Your task to perform on an android device: open device folders in google photos Image 0: 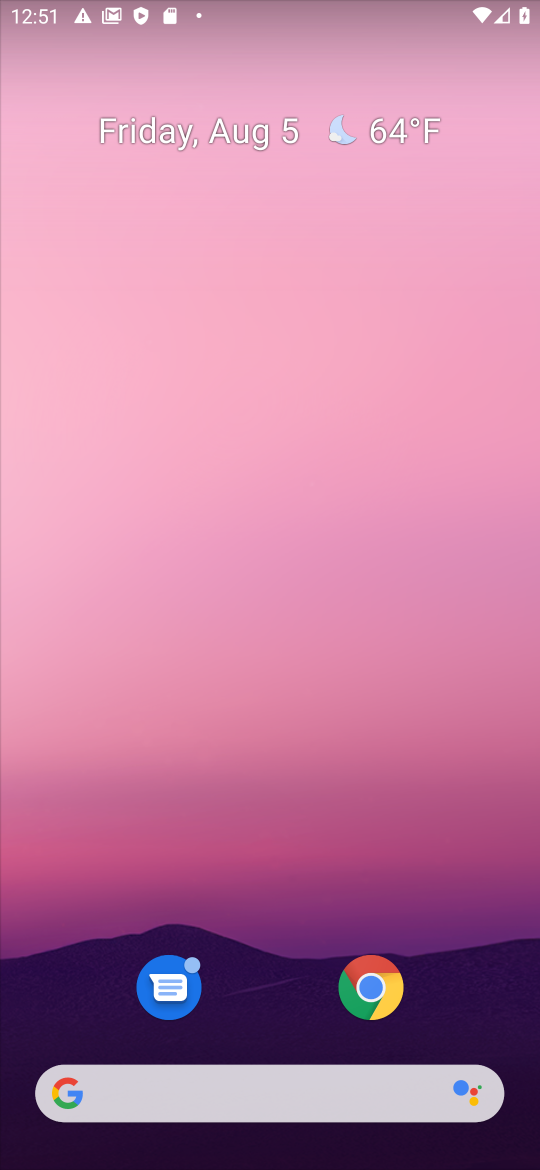
Step 0: drag from (192, 323) to (255, 0)
Your task to perform on an android device: open device folders in google photos Image 1: 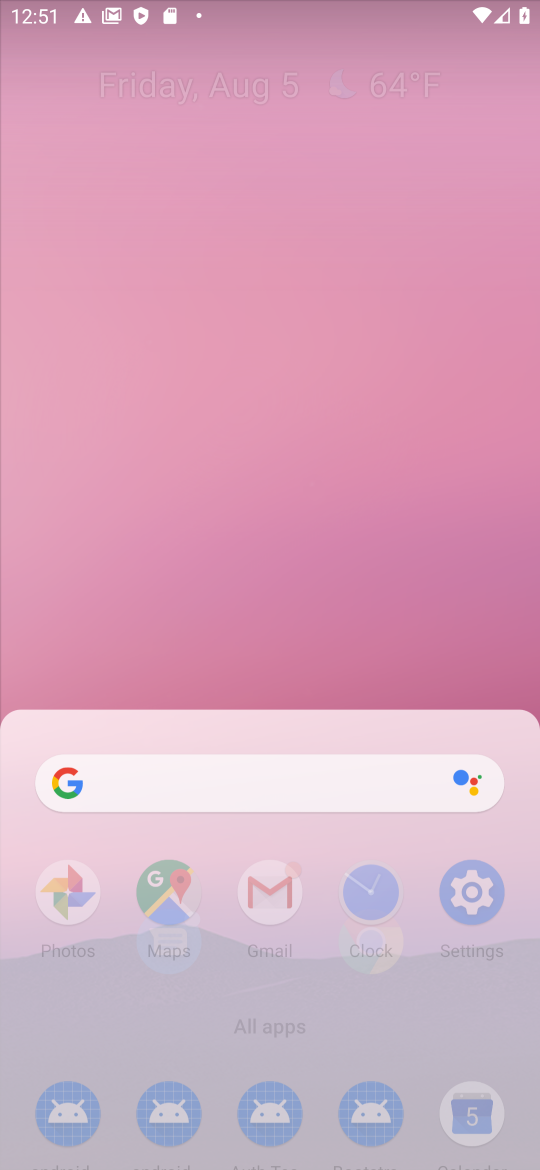
Step 1: drag from (308, 325) to (231, 180)
Your task to perform on an android device: open device folders in google photos Image 2: 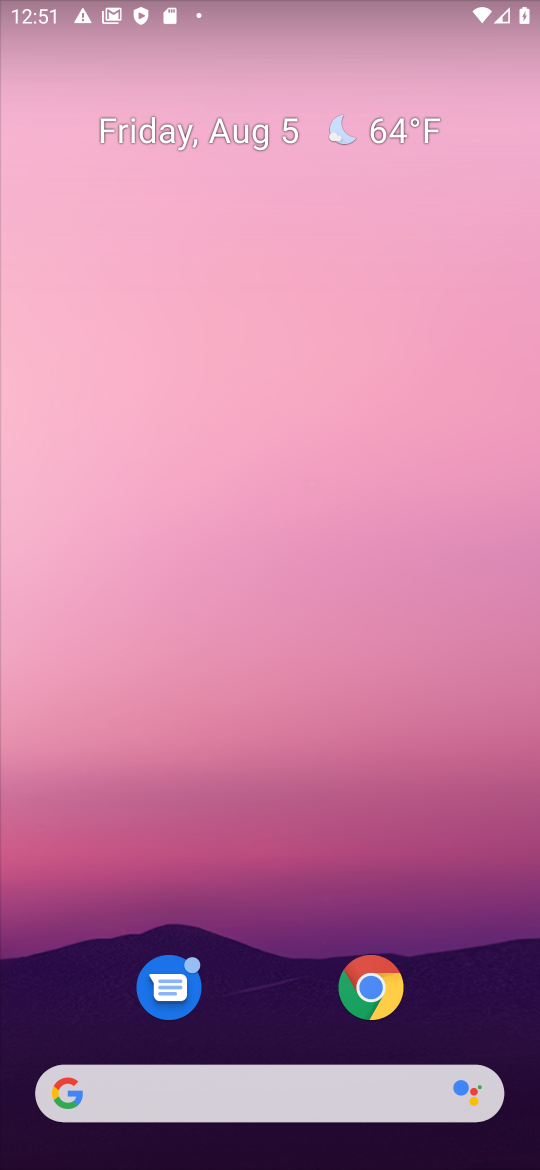
Step 2: drag from (339, 484) to (292, 274)
Your task to perform on an android device: open device folders in google photos Image 3: 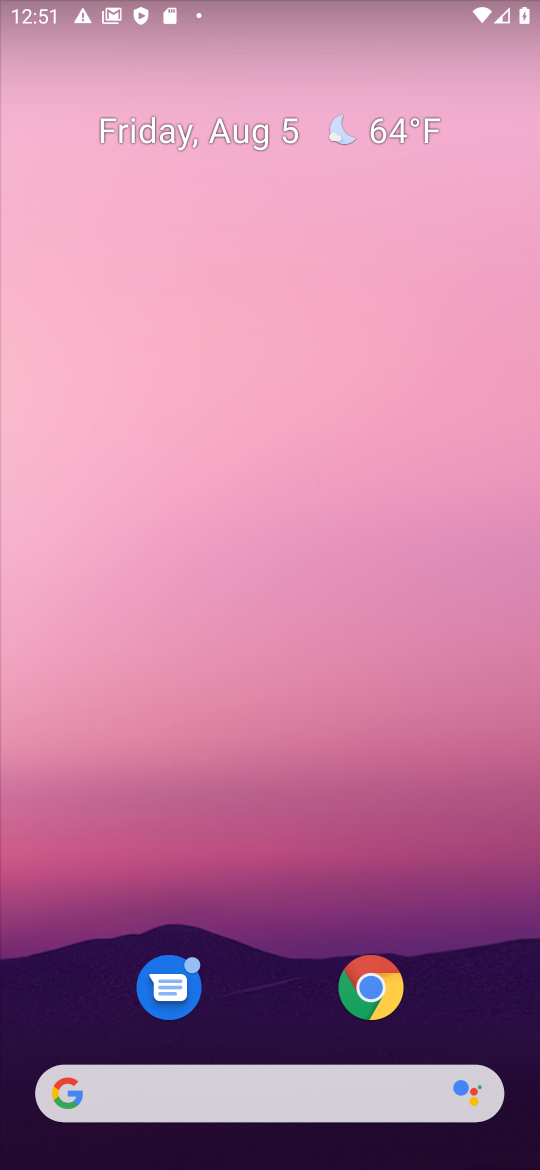
Step 3: drag from (296, 173) to (255, 12)
Your task to perform on an android device: open device folders in google photos Image 4: 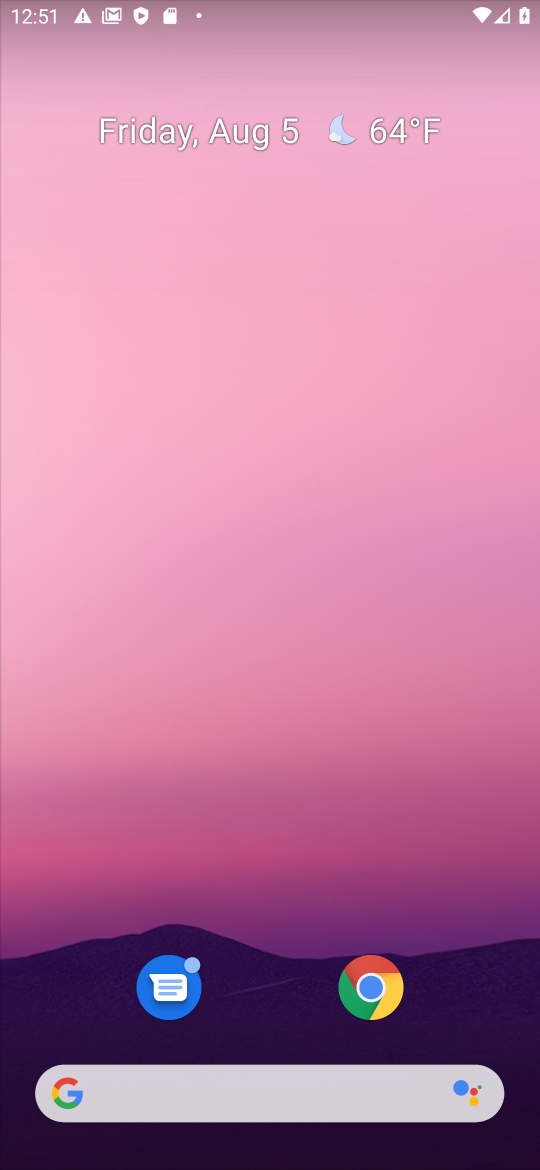
Step 4: drag from (199, 125) to (190, 177)
Your task to perform on an android device: open device folders in google photos Image 5: 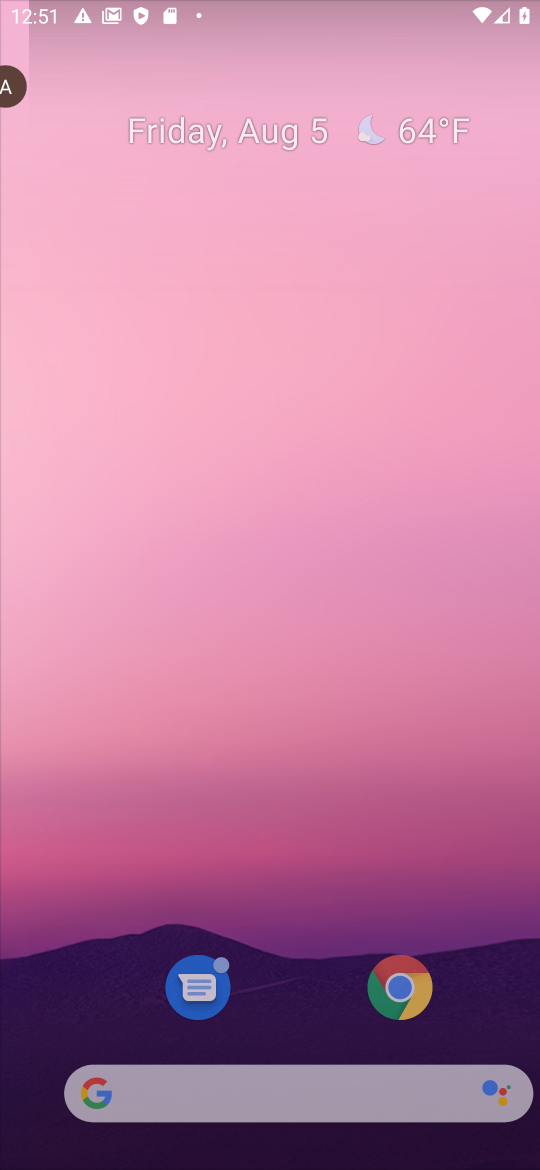
Step 5: drag from (316, 913) to (376, 209)
Your task to perform on an android device: open device folders in google photos Image 6: 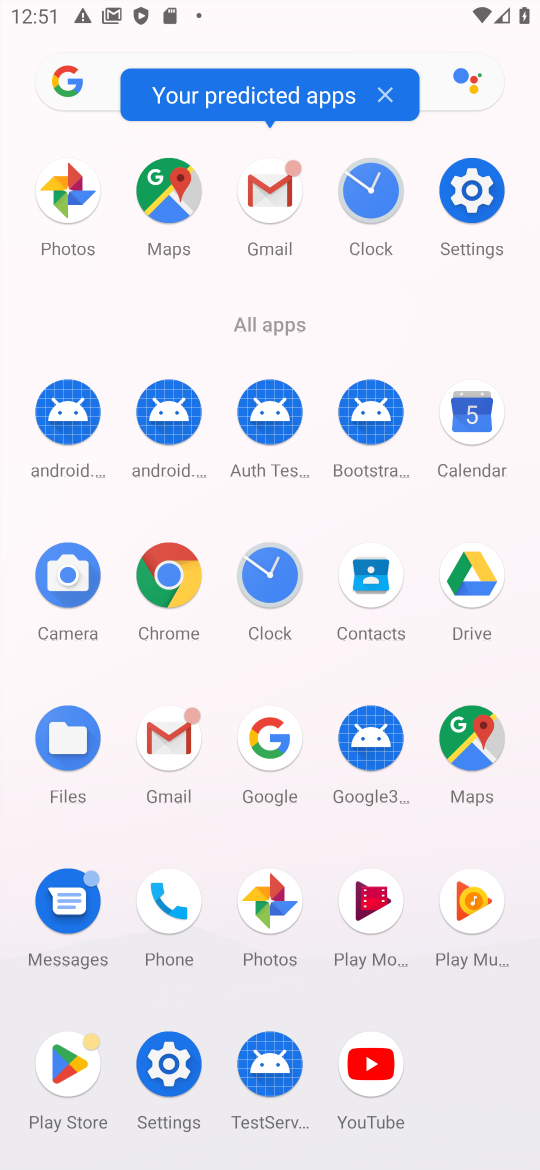
Step 6: click (271, 886)
Your task to perform on an android device: open device folders in google photos Image 7: 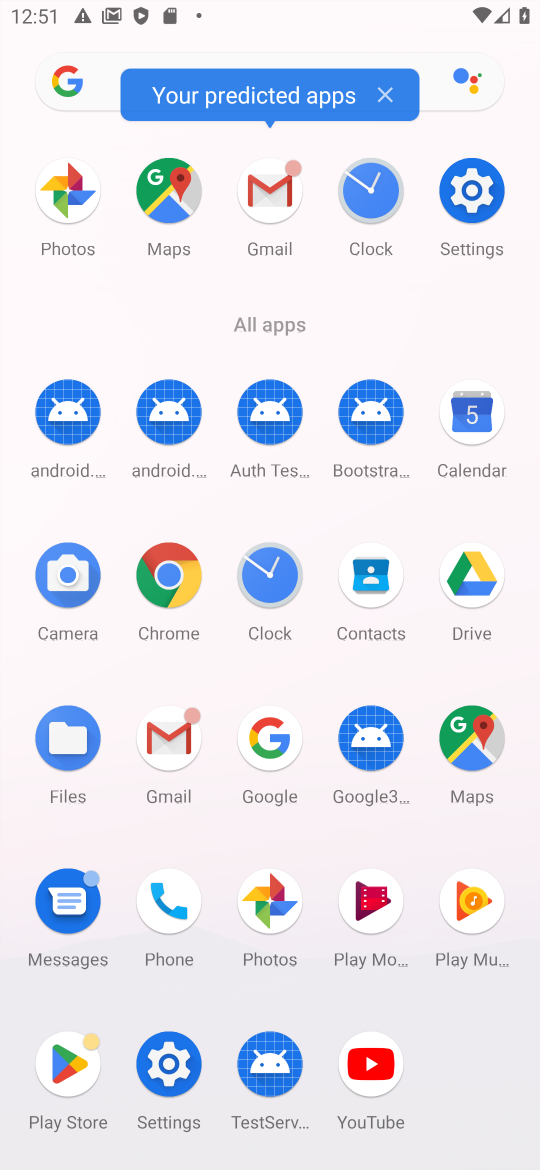
Step 7: click (258, 899)
Your task to perform on an android device: open device folders in google photos Image 8: 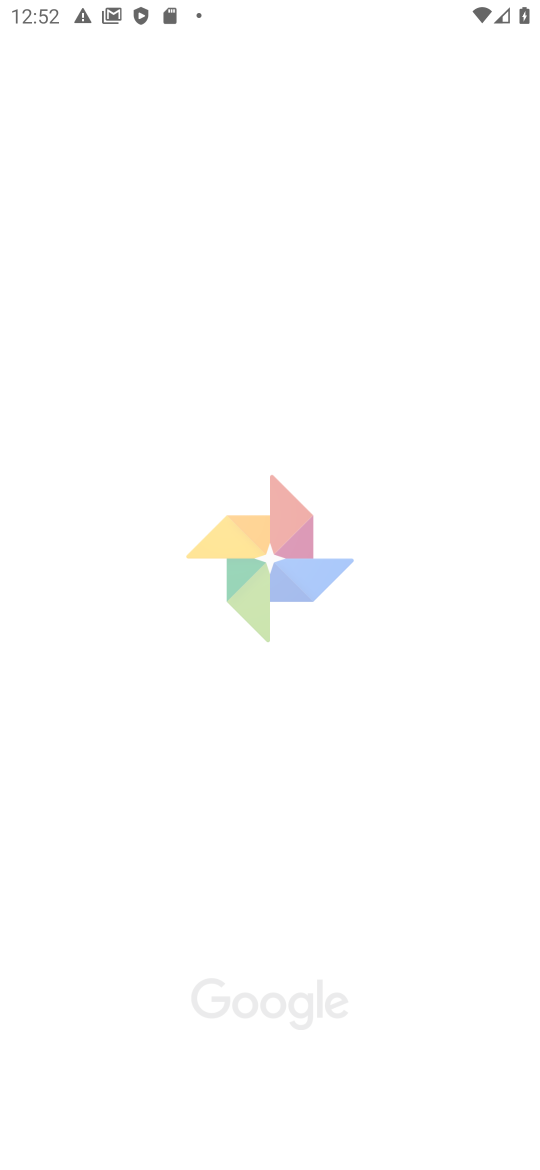
Step 8: click (263, 917)
Your task to perform on an android device: open device folders in google photos Image 9: 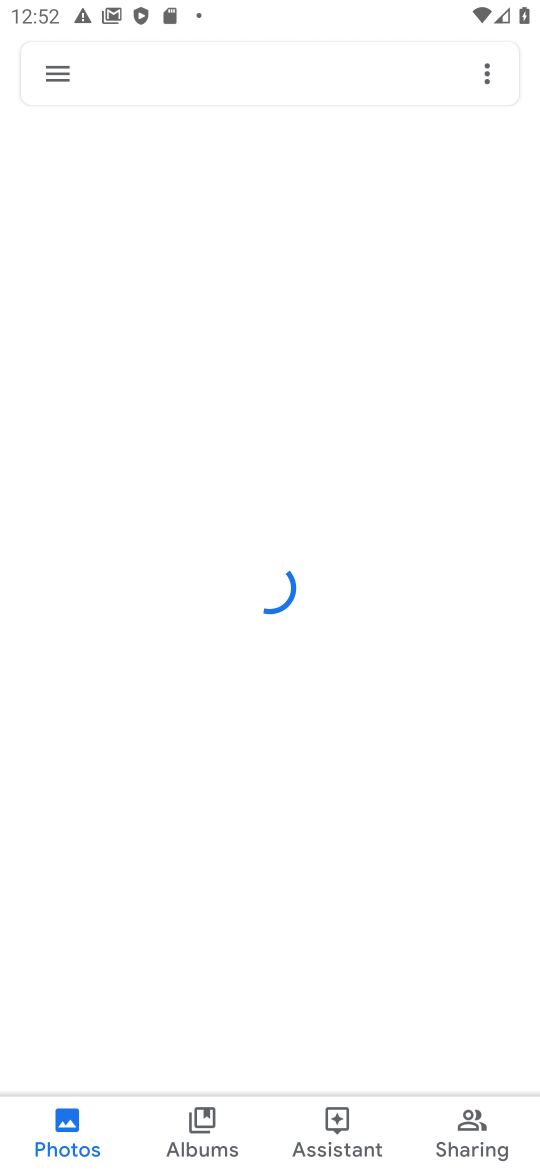
Step 9: click (46, 62)
Your task to perform on an android device: open device folders in google photos Image 10: 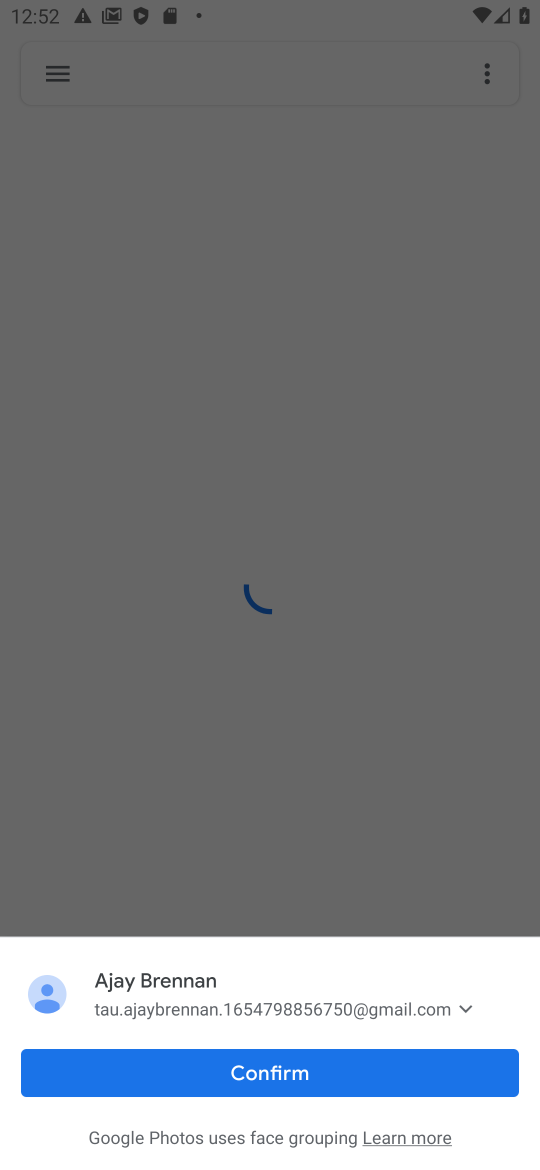
Step 10: click (61, 67)
Your task to perform on an android device: open device folders in google photos Image 11: 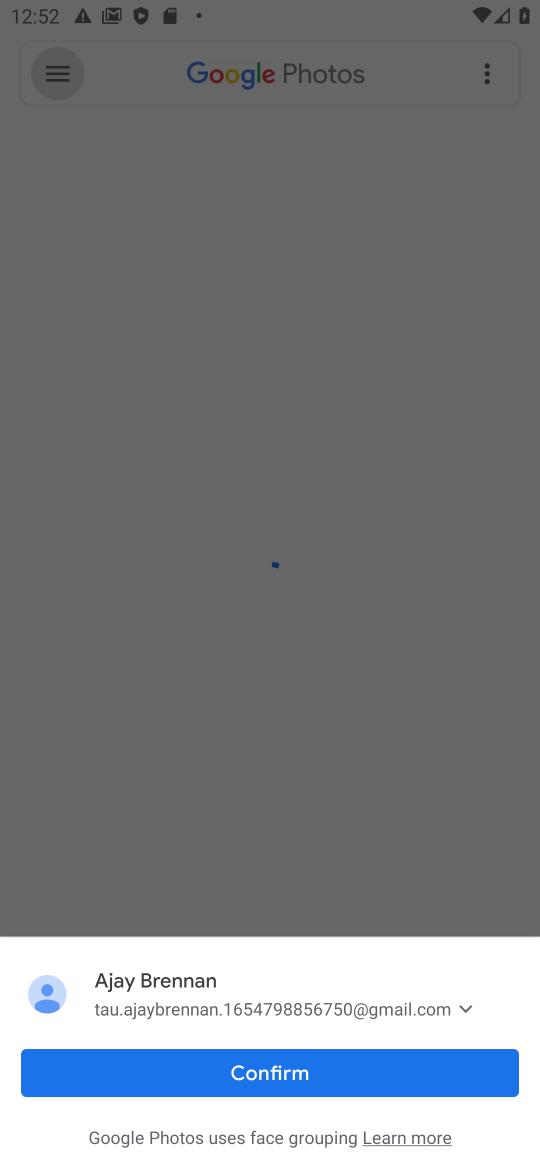
Step 11: click (61, 67)
Your task to perform on an android device: open device folders in google photos Image 12: 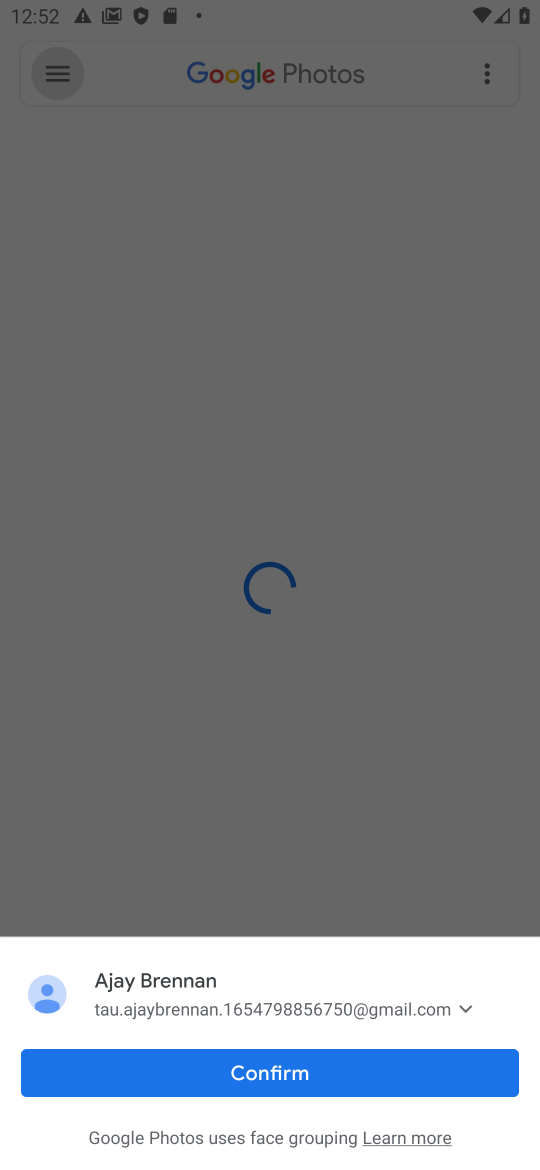
Step 12: click (60, 69)
Your task to perform on an android device: open device folders in google photos Image 13: 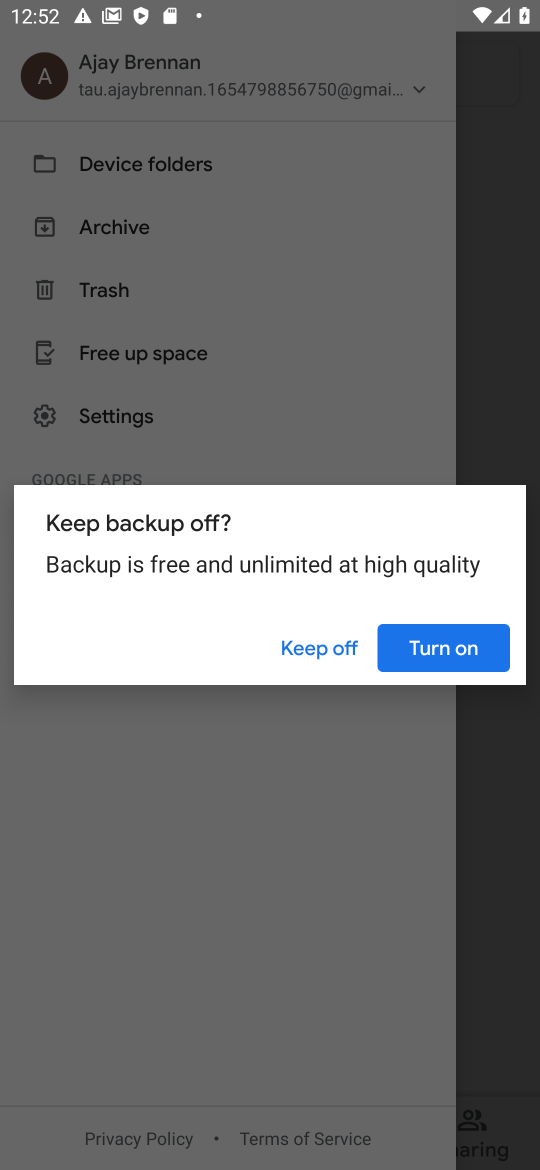
Step 13: drag from (329, 352) to (188, 172)
Your task to perform on an android device: open device folders in google photos Image 14: 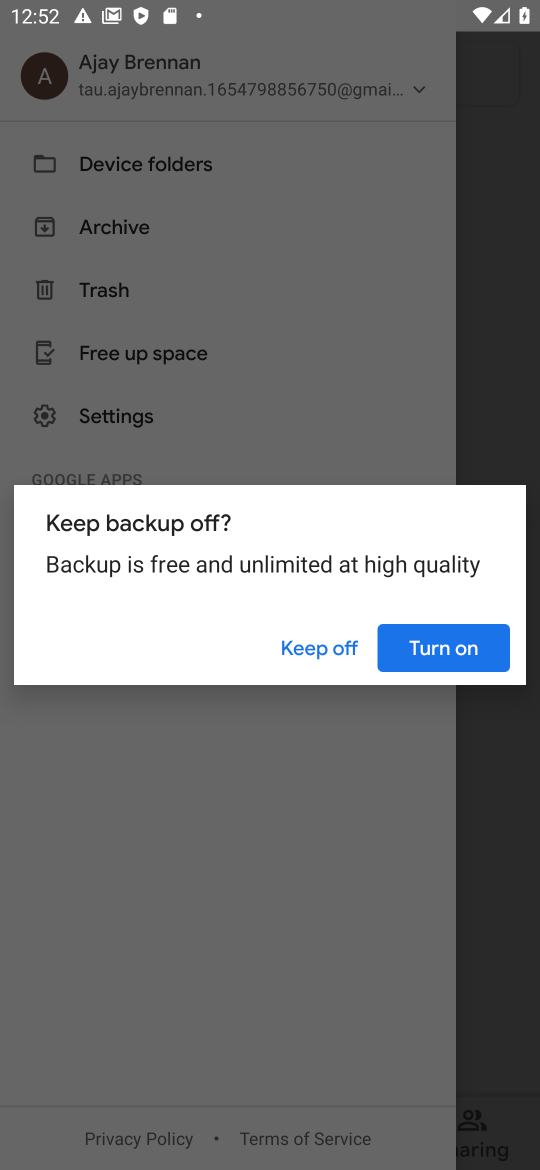
Step 14: click (320, 647)
Your task to perform on an android device: open device folders in google photos Image 15: 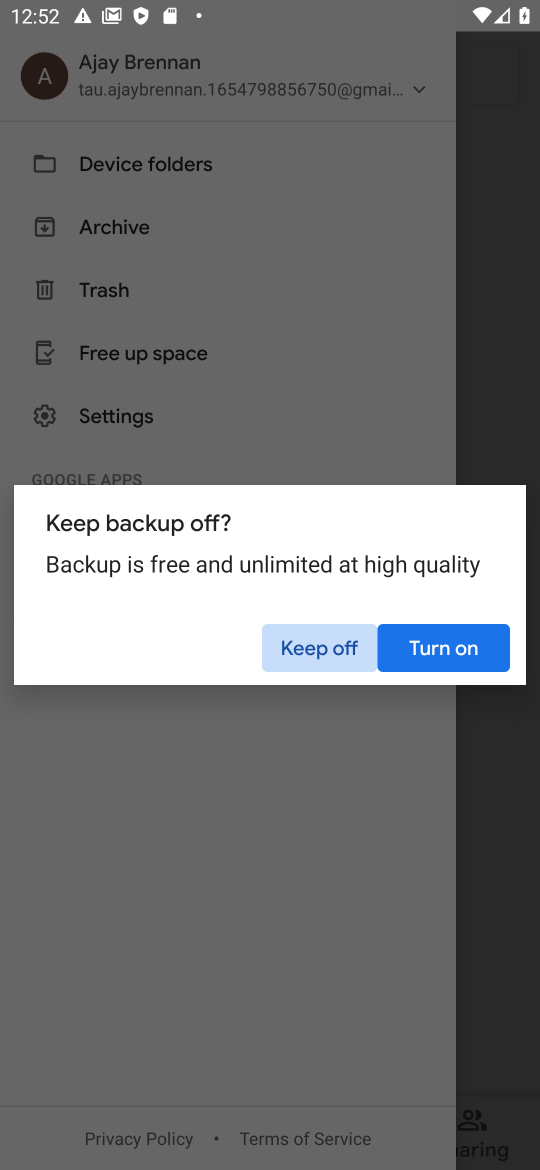
Step 15: click (323, 651)
Your task to perform on an android device: open device folders in google photos Image 16: 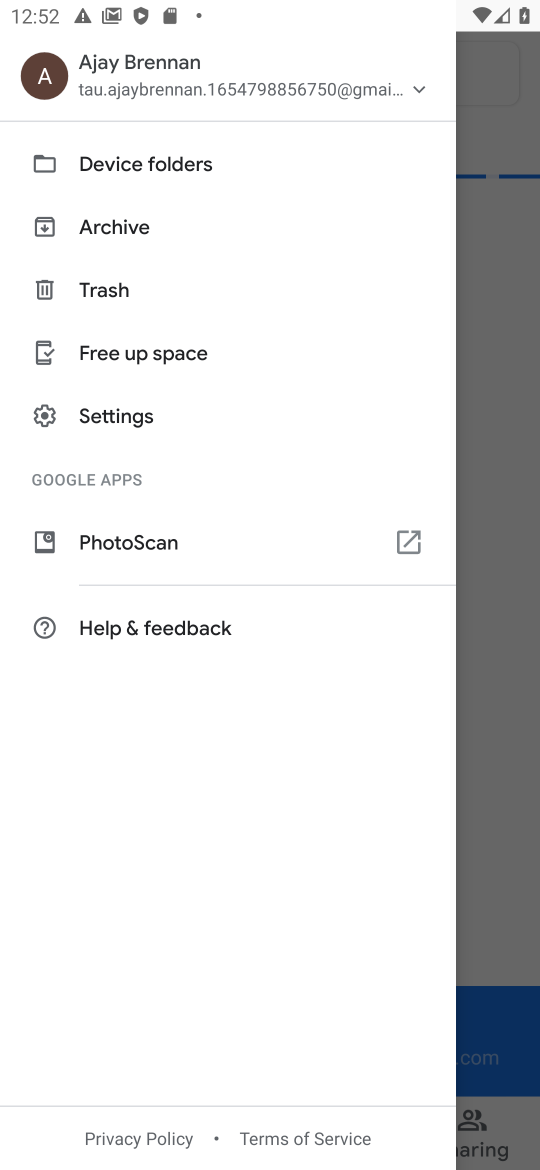
Step 16: click (148, 161)
Your task to perform on an android device: open device folders in google photos Image 17: 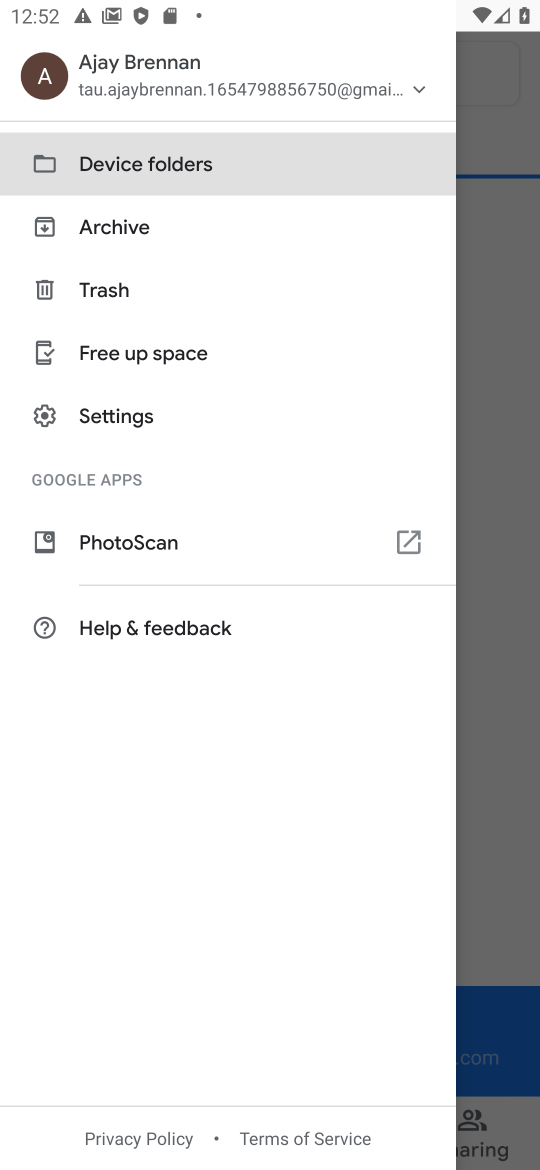
Step 17: click (148, 161)
Your task to perform on an android device: open device folders in google photos Image 18: 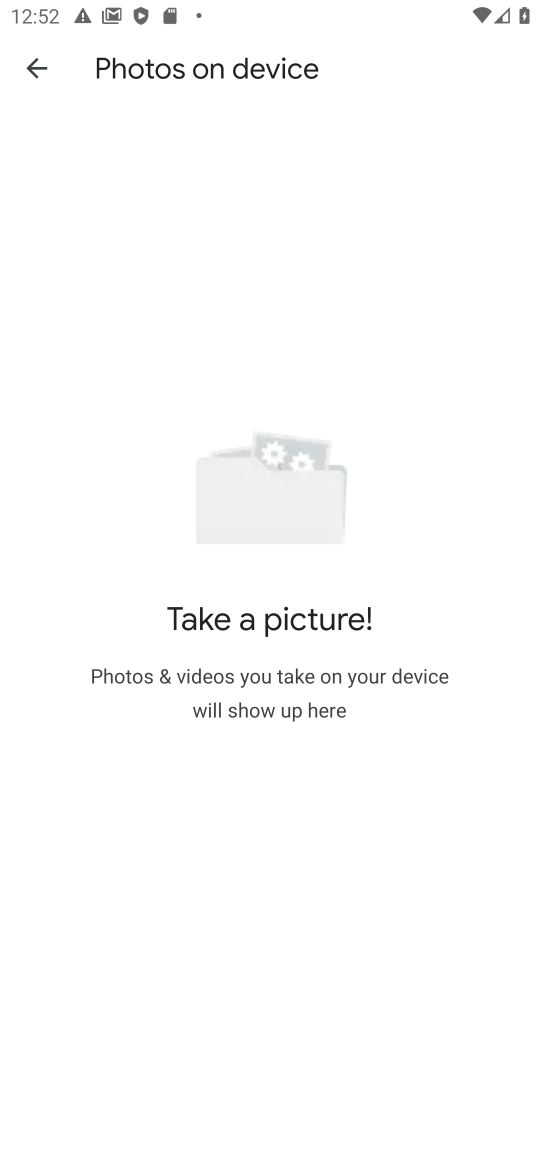
Step 18: task complete